Your task to perform on an android device: Go to privacy settings Image 0: 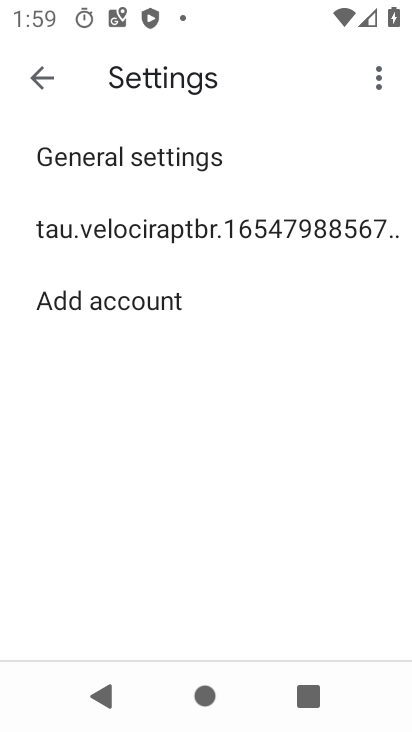
Step 0: press back button
Your task to perform on an android device: Go to privacy settings Image 1: 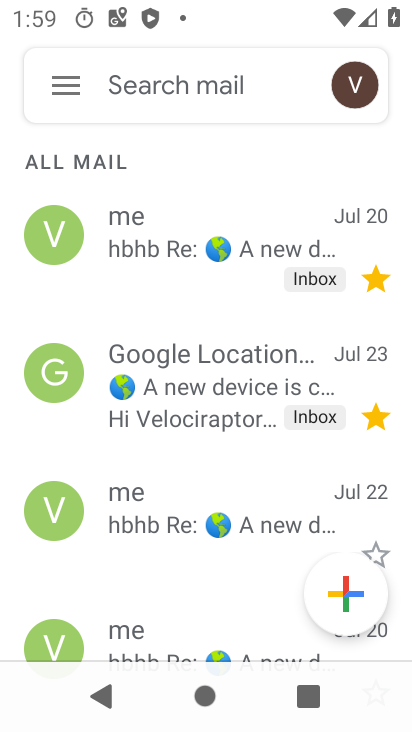
Step 1: press back button
Your task to perform on an android device: Go to privacy settings Image 2: 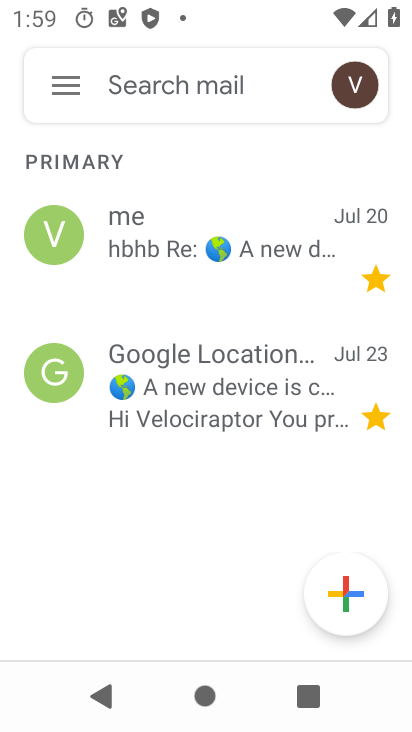
Step 2: press back button
Your task to perform on an android device: Go to privacy settings Image 3: 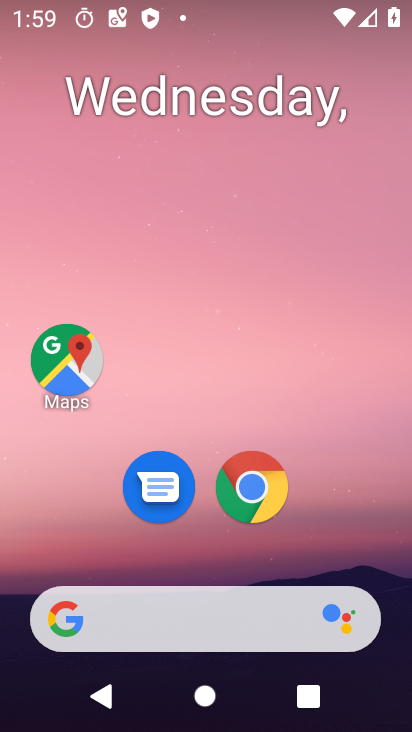
Step 3: drag from (182, 560) to (274, 13)
Your task to perform on an android device: Go to privacy settings Image 4: 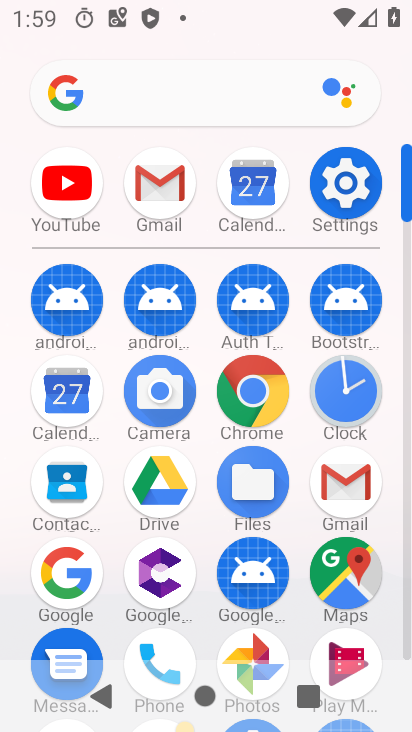
Step 4: click (337, 184)
Your task to perform on an android device: Go to privacy settings Image 5: 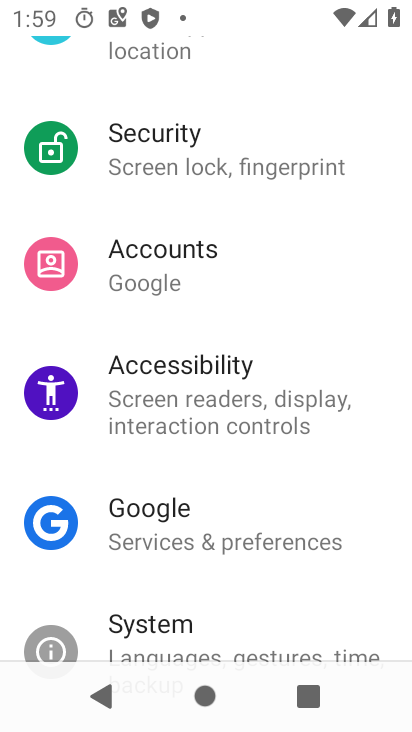
Step 5: drag from (219, 173) to (219, 726)
Your task to perform on an android device: Go to privacy settings Image 6: 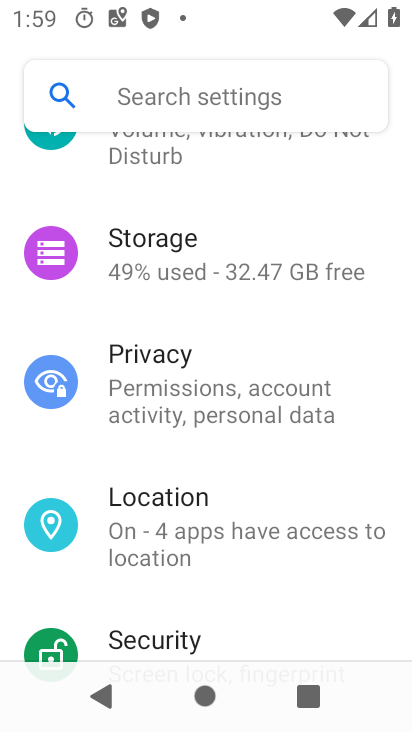
Step 6: click (183, 380)
Your task to perform on an android device: Go to privacy settings Image 7: 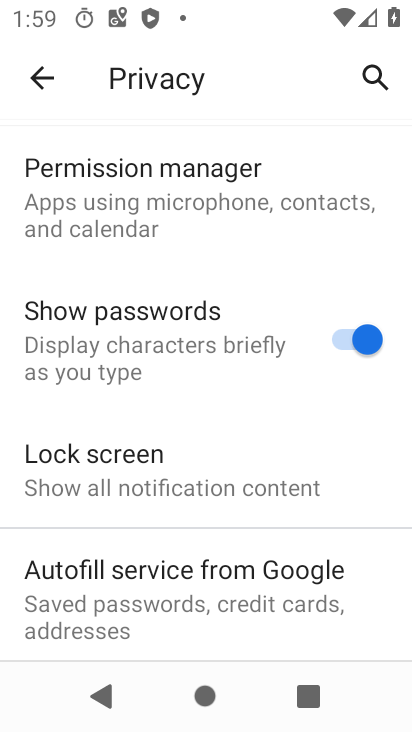
Step 7: task complete